Your task to perform on an android device: check android version Image 0: 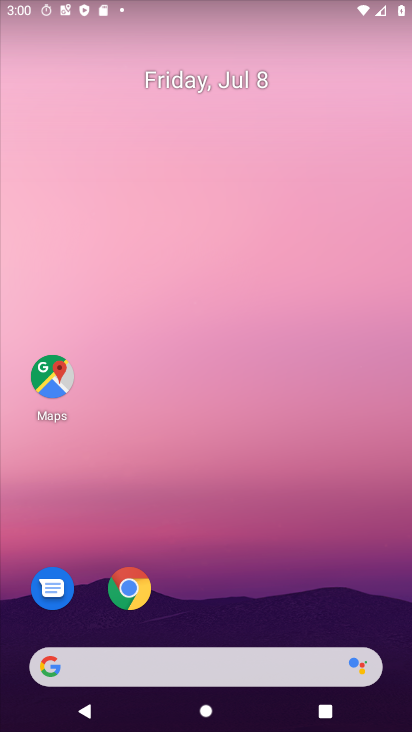
Step 0: press home button
Your task to perform on an android device: check android version Image 1: 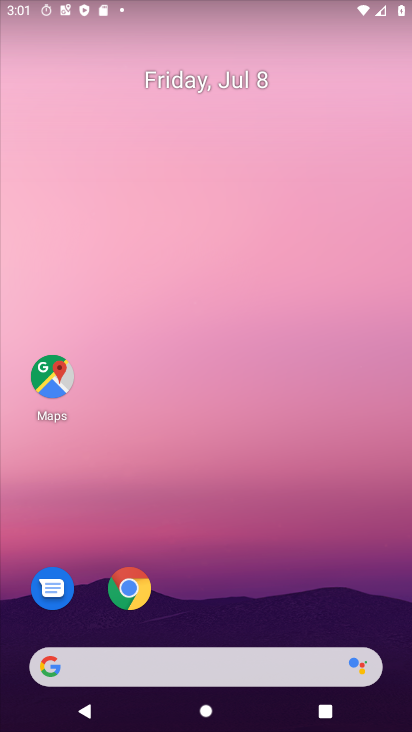
Step 1: drag from (243, 604) to (240, 92)
Your task to perform on an android device: check android version Image 2: 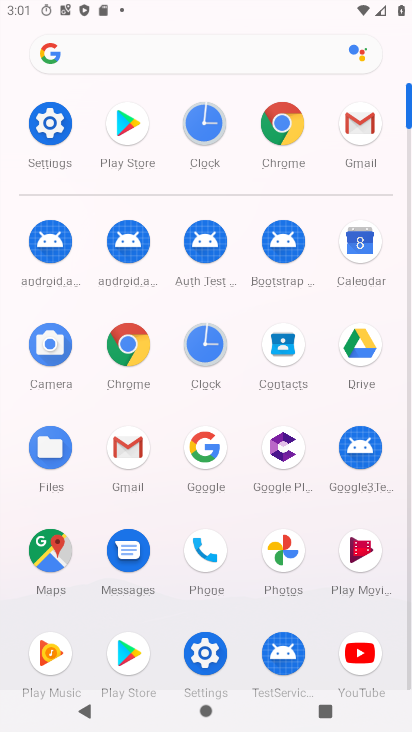
Step 2: click (60, 135)
Your task to perform on an android device: check android version Image 3: 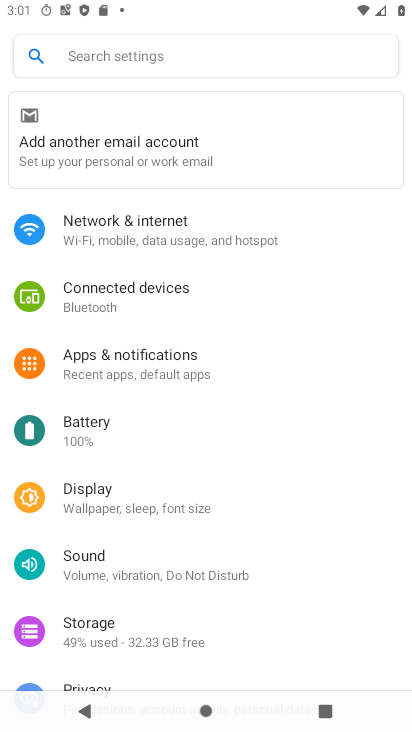
Step 3: drag from (301, 653) to (304, 106)
Your task to perform on an android device: check android version Image 4: 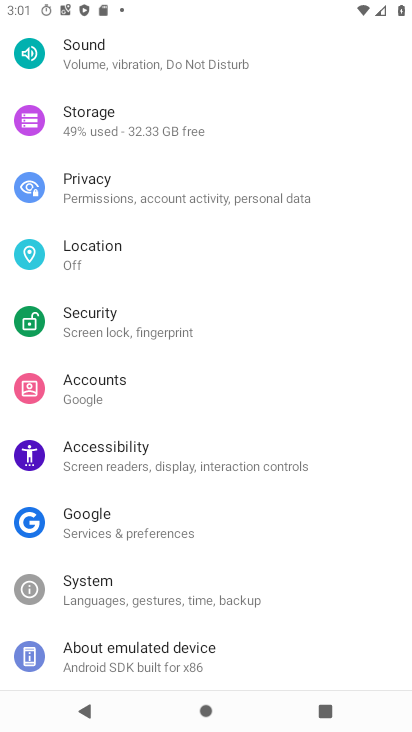
Step 4: click (131, 657)
Your task to perform on an android device: check android version Image 5: 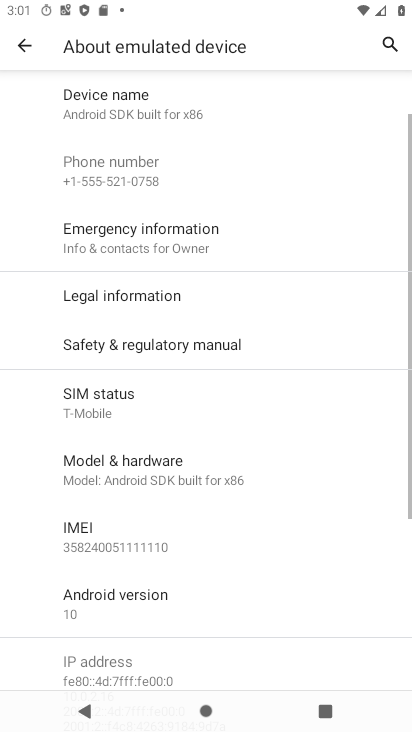
Step 5: task complete